Your task to perform on an android device: turn on bluetooth scan Image 0: 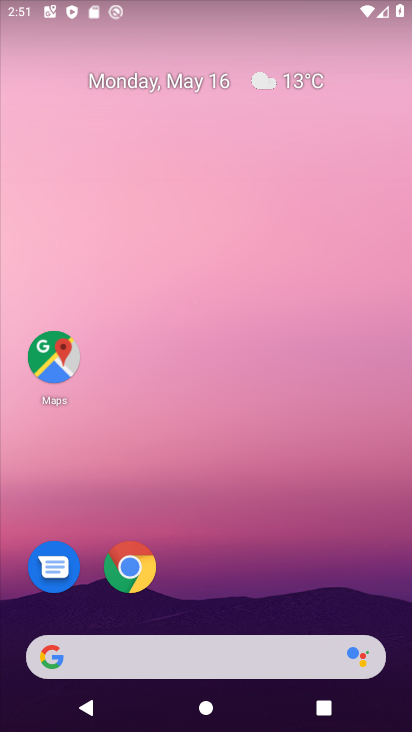
Step 0: drag from (303, 599) to (297, 64)
Your task to perform on an android device: turn on bluetooth scan Image 1: 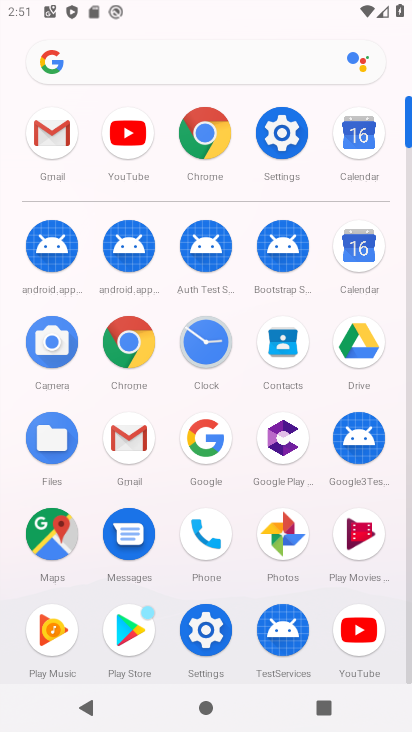
Step 1: click (274, 132)
Your task to perform on an android device: turn on bluetooth scan Image 2: 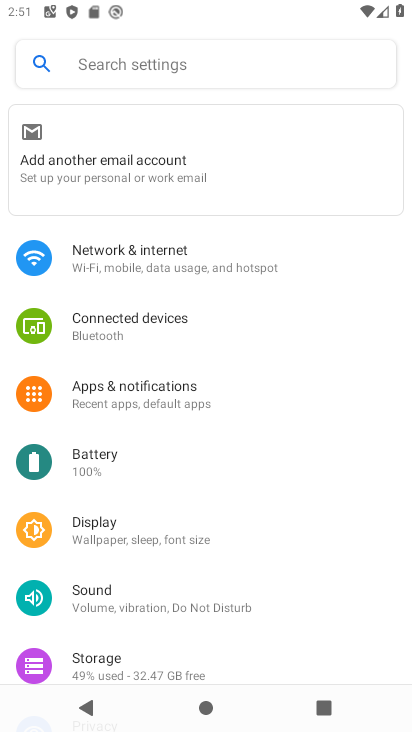
Step 2: drag from (236, 616) to (304, 258)
Your task to perform on an android device: turn on bluetooth scan Image 3: 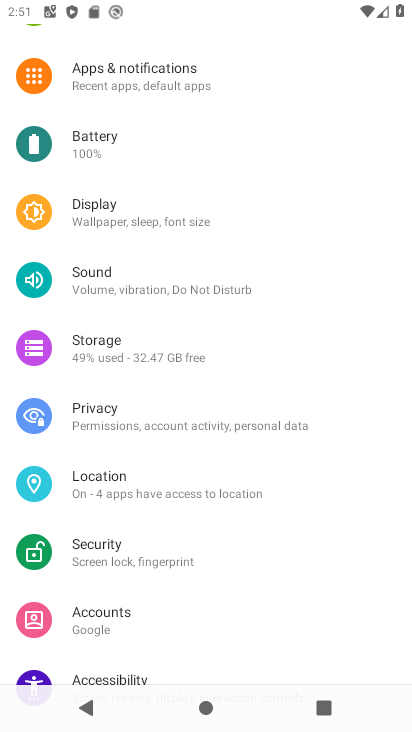
Step 3: drag from (188, 576) to (261, 347)
Your task to perform on an android device: turn on bluetooth scan Image 4: 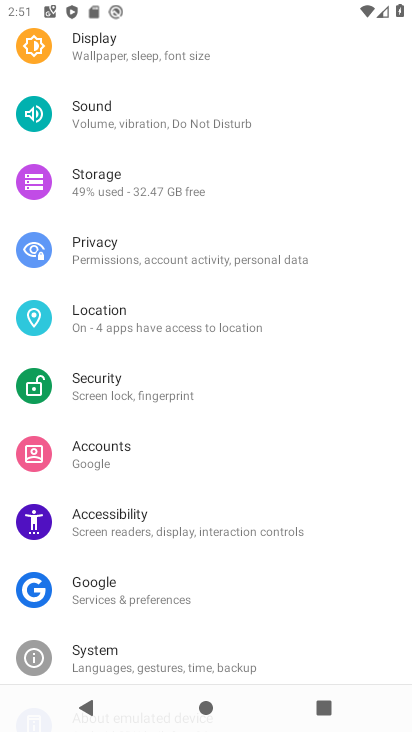
Step 4: click (143, 310)
Your task to perform on an android device: turn on bluetooth scan Image 5: 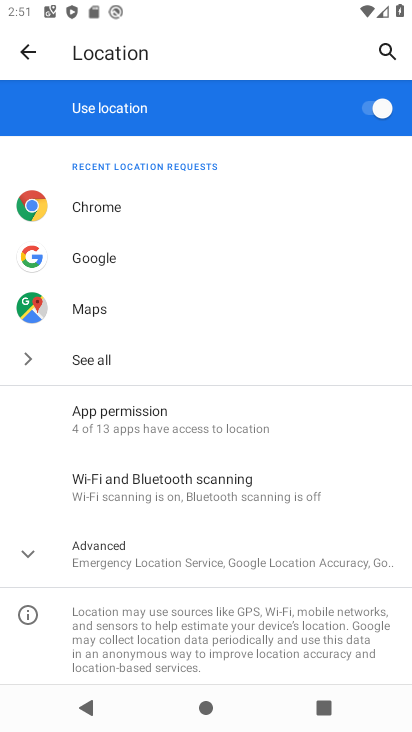
Step 5: click (145, 480)
Your task to perform on an android device: turn on bluetooth scan Image 6: 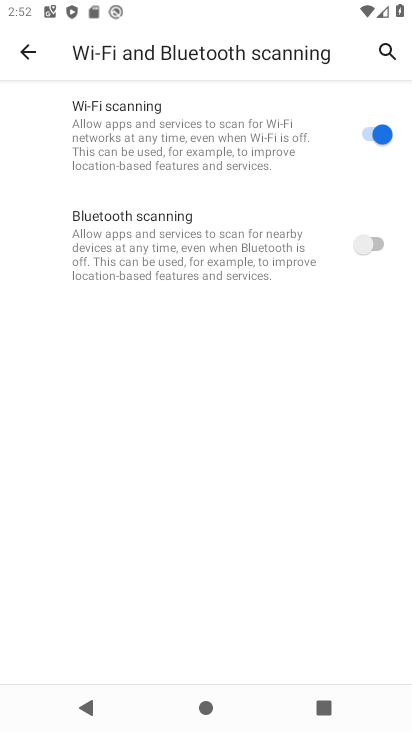
Step 6: click (381, 222)
Your task to perform on an android device: turn on bluetooth scan Image 7: 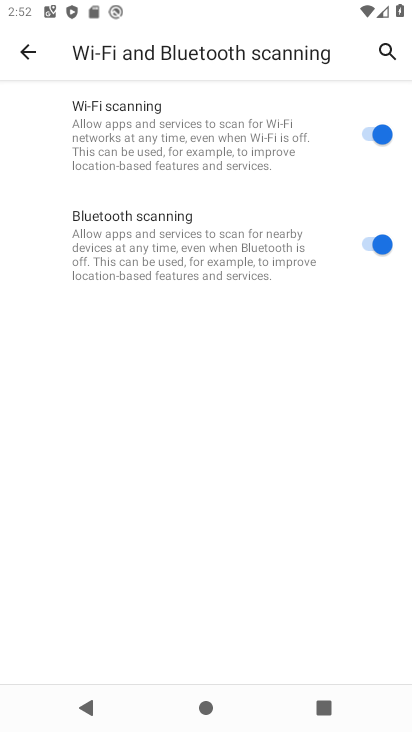
Step 7: task complete